Your task to perform on an android device: star an email in the gmail app Image 0: 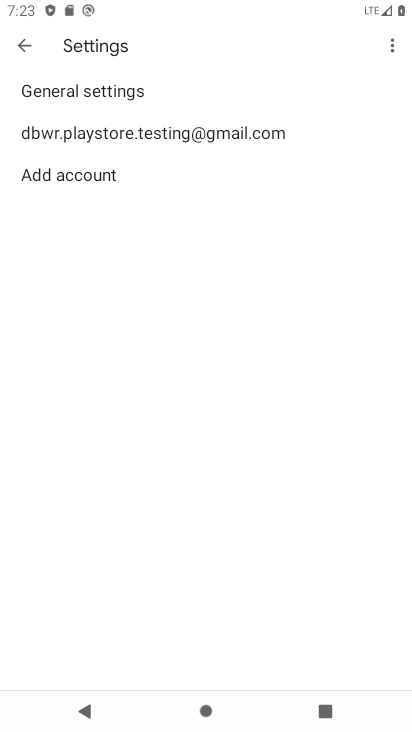
Step 0: press home button
Your task to perform on an android device: star an email in the gmail app Image 1: 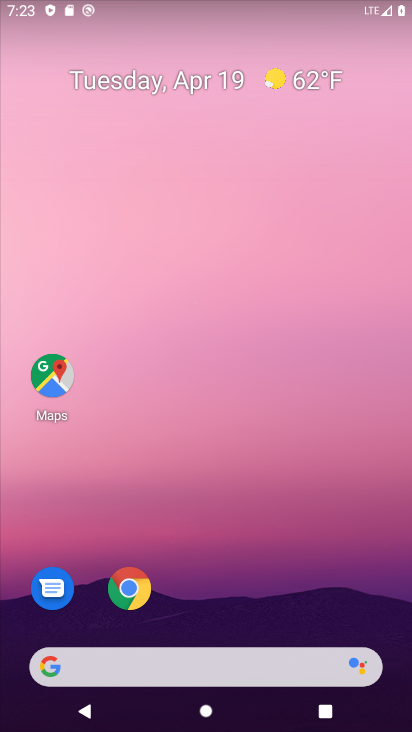
Step 1: drag from (219, 581) to (191, 8)
Your task to perform on an android device: star an email in the gmail app Image 2: 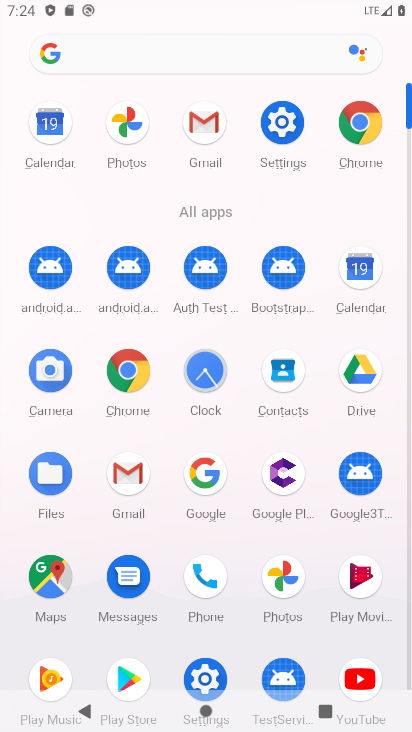
Step 2: click (207, 133)
Your task to perform on an android device: star an email in the gmail app Image 3: 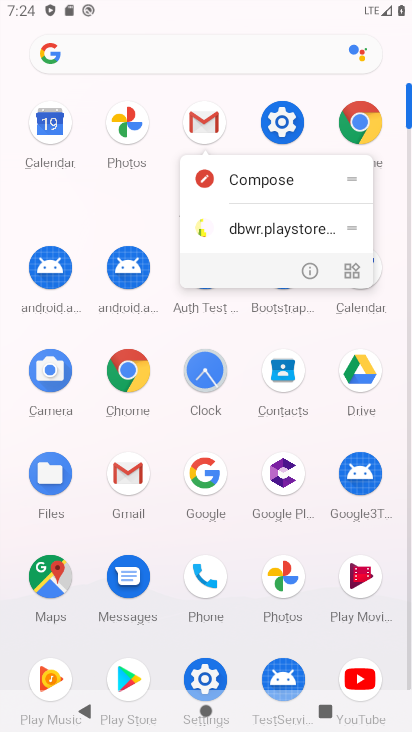
Step 3: click (203, 124)
Your task to perform on an android device: star an email in the gmail app Image 4: 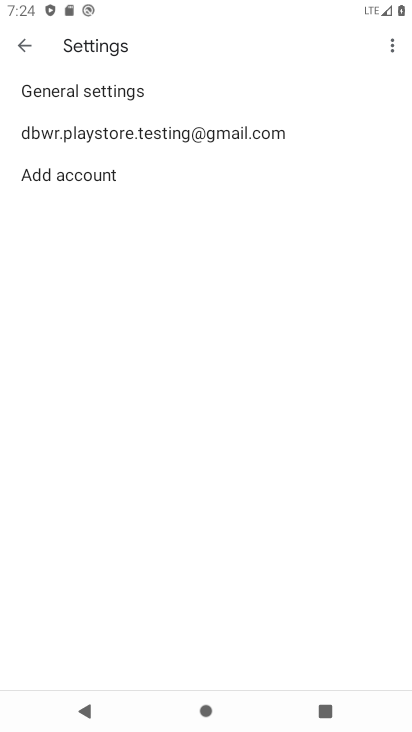
Step 4: click (23, 40)
Your task to perform on an android device: star an email in the gmail app Image 5: 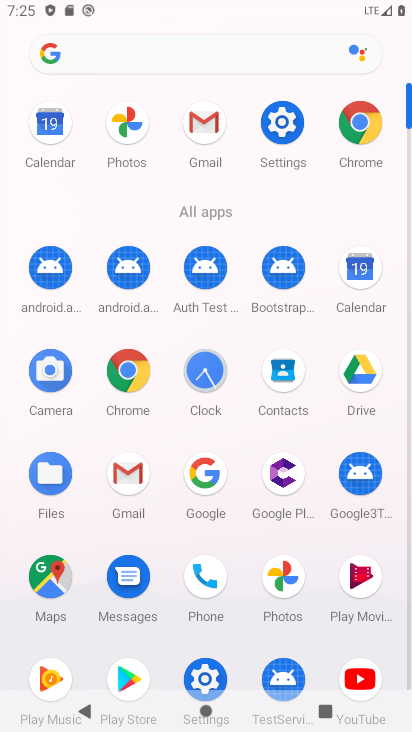
Step 5: click (206, 129)
Your task to perform on an android device: star an email in the gmail app Image 6: 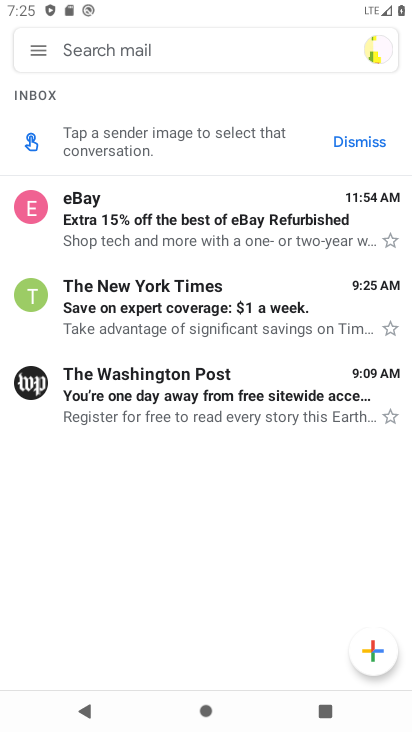
Step 6: click (393, 242)
Your task to perform on an android device: star an email in the gmail app Image 7: 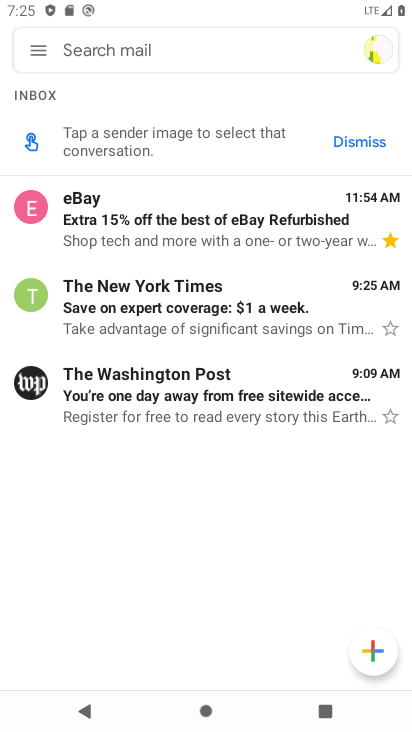
Step 7: task complete